Your task to perform on an android device: Go to notification settings Image 0: 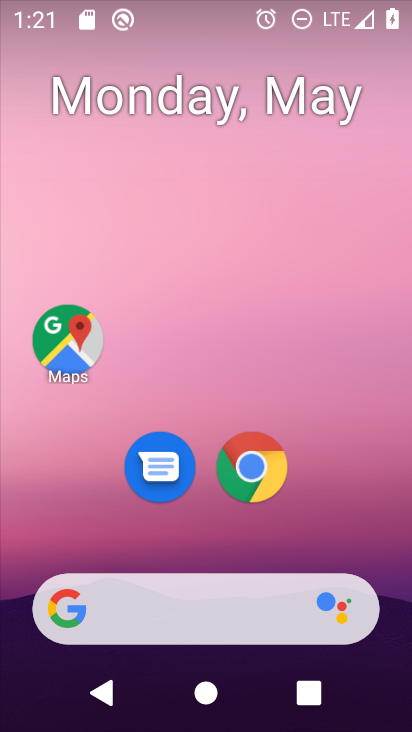
Step 0: drag from (366, 566) to (366, 495)
Your task to perform on an android device: Go to notification settings Image 1: 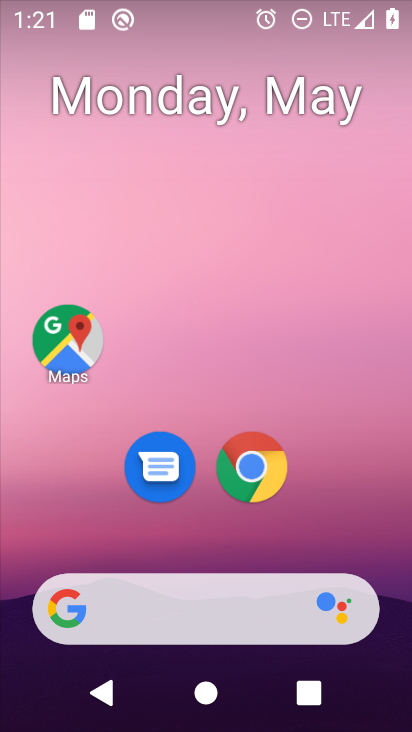
Step 1: drag from (360, 548) to (362, 10)
Your task to perform on an android device: Go to notification settings Image 2: 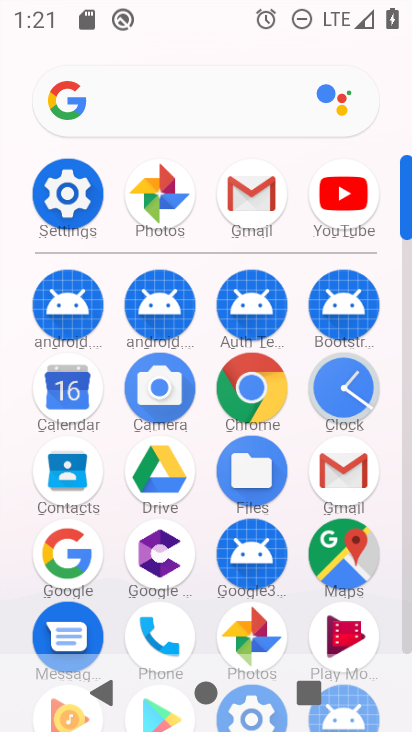
Step 2: click (63, 191)
Your task to perform on an android device: Go to notification settings Image 3: 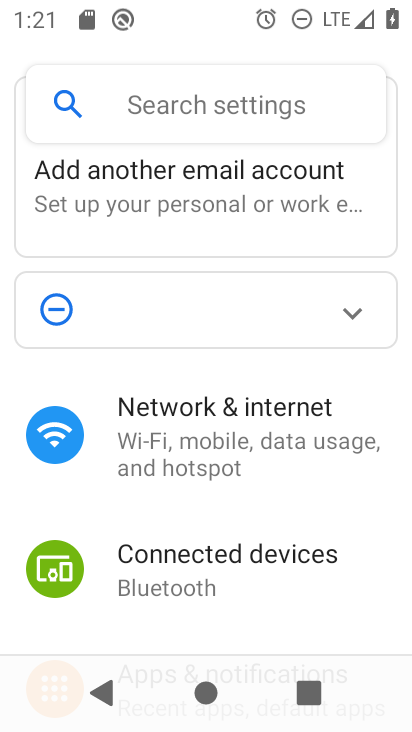
Step 3: drag from (340, 532) to (359, 148)
Your task to perform on an android device: Go to notification settings Image 4: 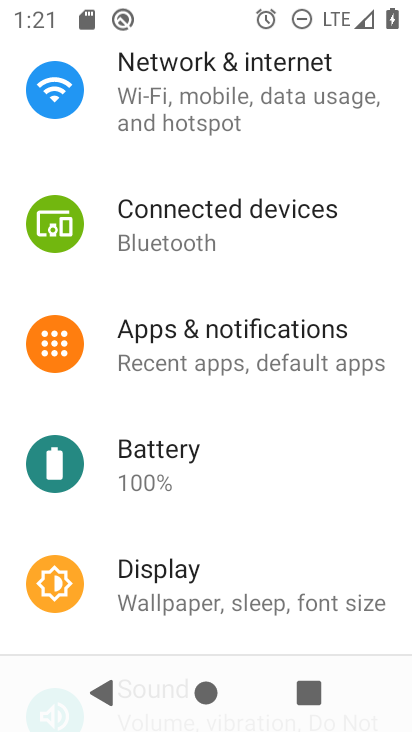
Step 4: click (234, 361)
Your task to perform on an android device: Go to notification settings Image 5: 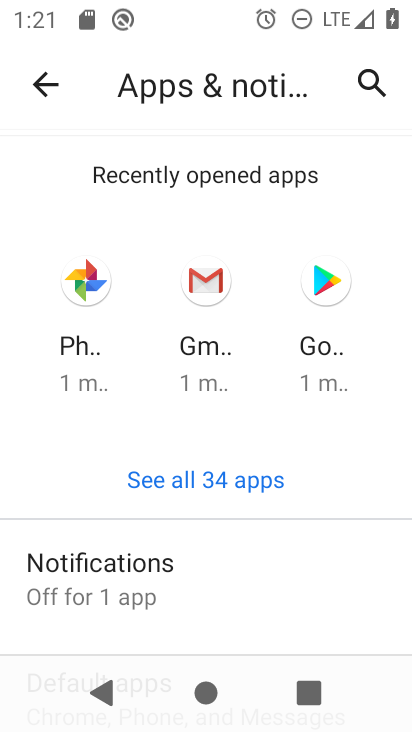
Step 5: task complete